Your task to perform on an android device: Show me the alarms in the clock app Image 0: 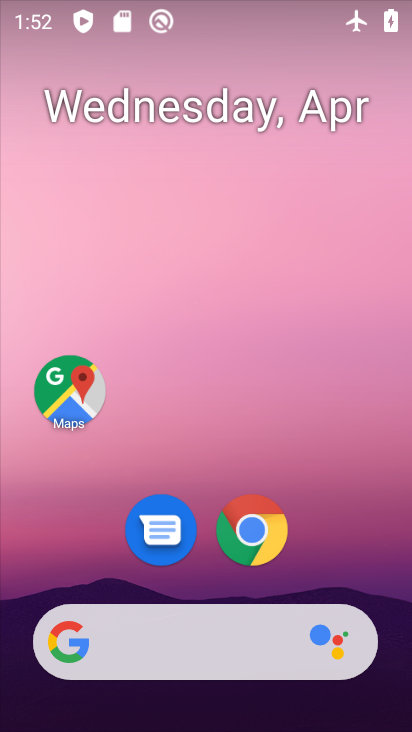
Step 0: drag from (359, 545) to (319, 115)
Your task to perform on an android device: Show me the alarms in the clock app Image 1: 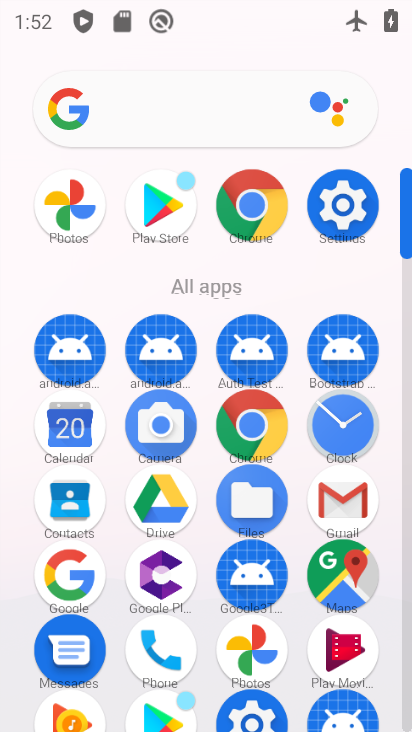
Step 1: click (339, 420)
Your task to perform on an android device: Show me the alarms in the clock app Image 2: 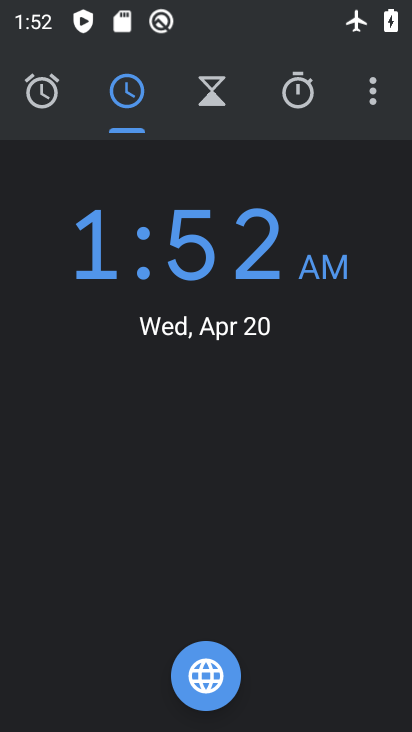
Step 2: click (43, 81)
Your task to perform on an android device: Show me the alarms in the clock app Image 3: 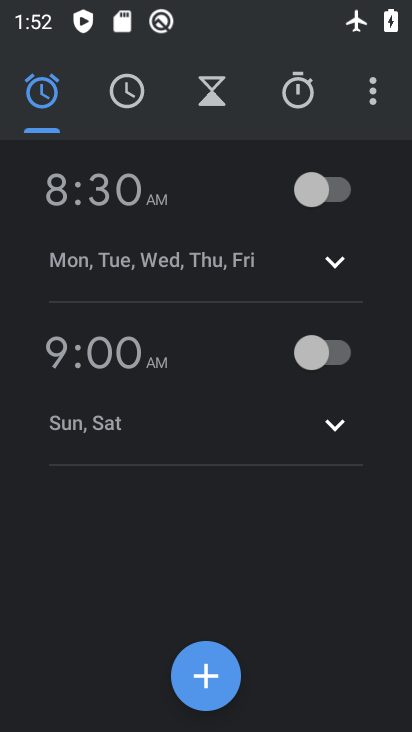
Step 3: task complete